Your task to perform on an android device: Go to settings Image 0: 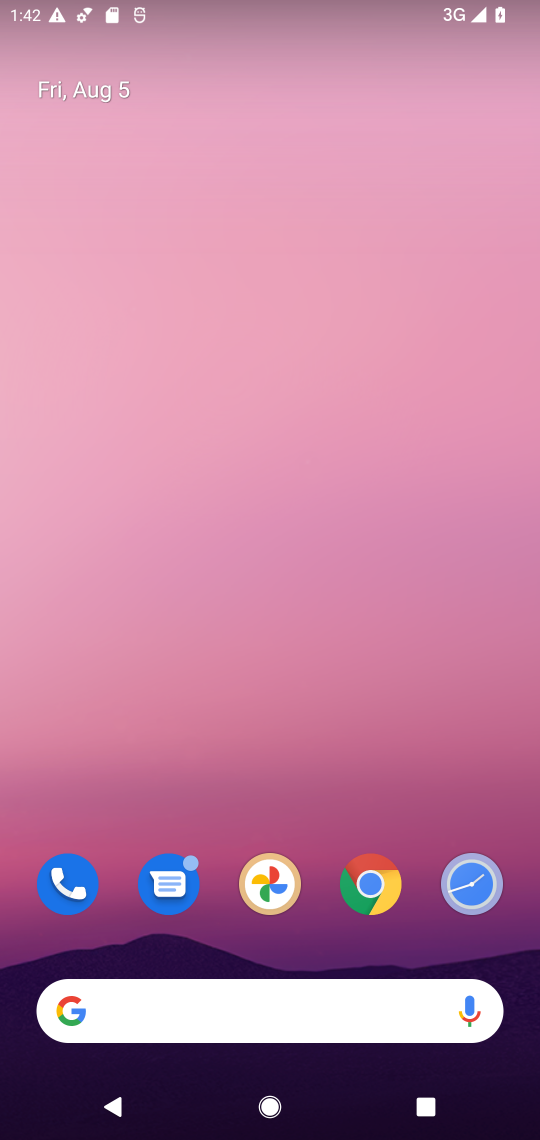
Step 0: drag from (493, 965) to (368, 118)
Your task to perform on an android device: Go to settings Image 1: 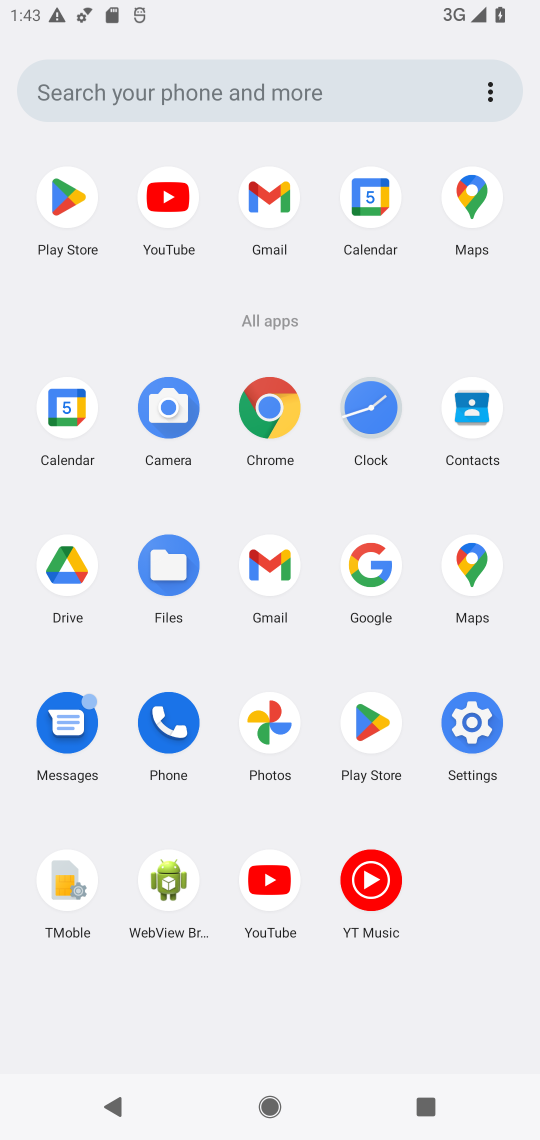
Step 1: click (466, 714)
Your task to perform on an android device: Go to settings Image 2: 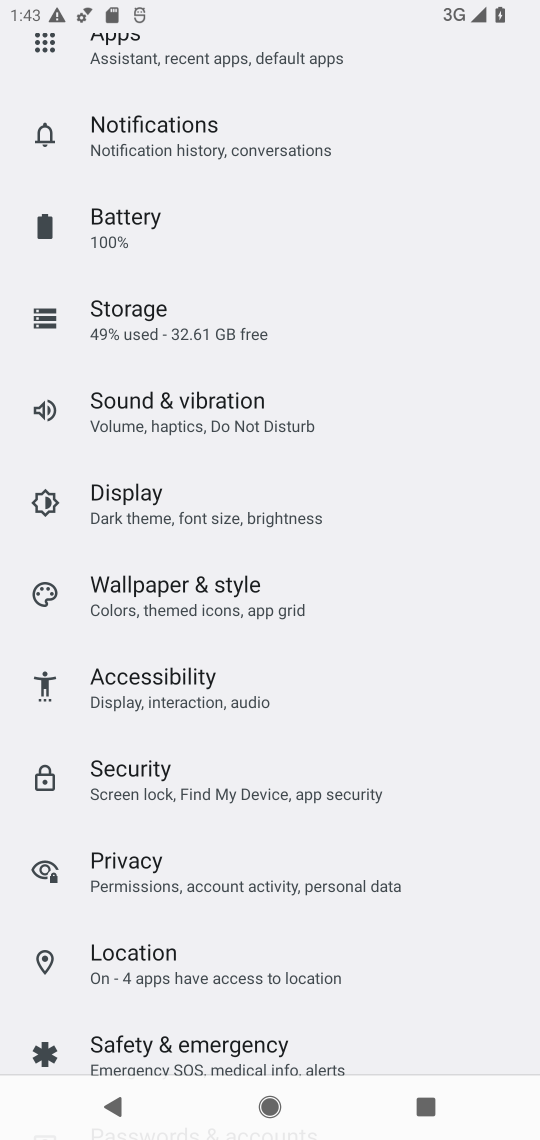
Step 2: task complete